Your task to perform on an android device: move a message to another label in the gmail app Image 0: 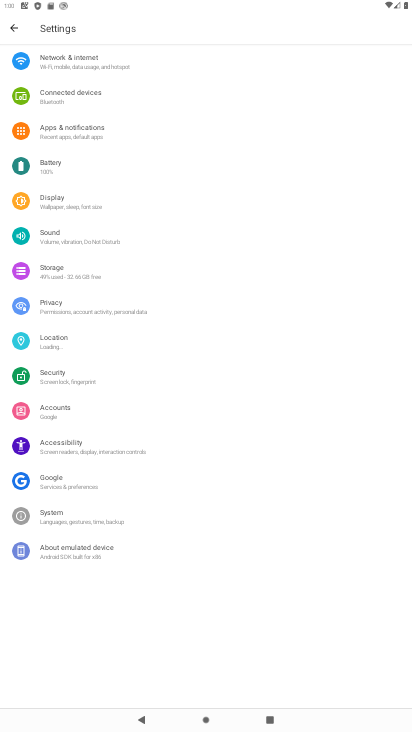
Step 0: press home button
Your task to perform on an android device: move a message to another label in the gmail app Image 1: 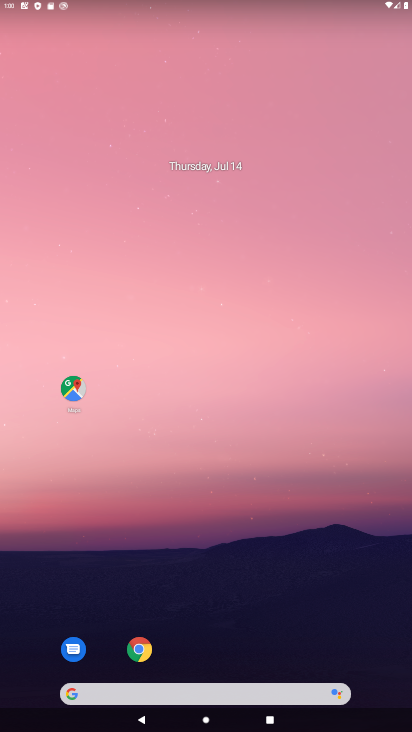
Step 1: drag from (269, 577) to (281, 28)
Your task to perform on an android device: move a message to another label in the gmail app Image 2: 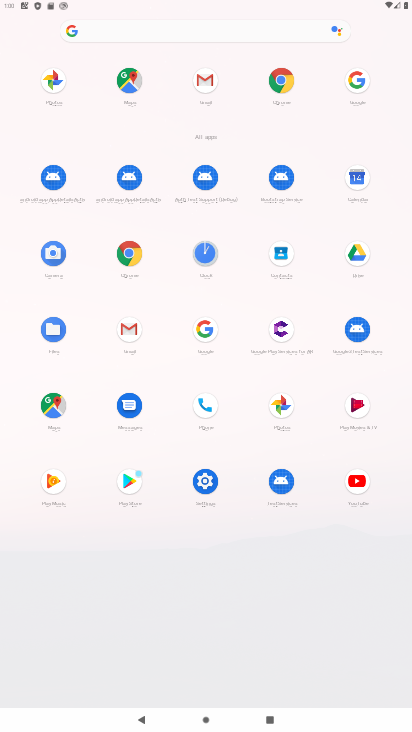
Step 2: click (212, 82)
Your task to perform on an android device: move a message to another label in the gmail app Image 3: 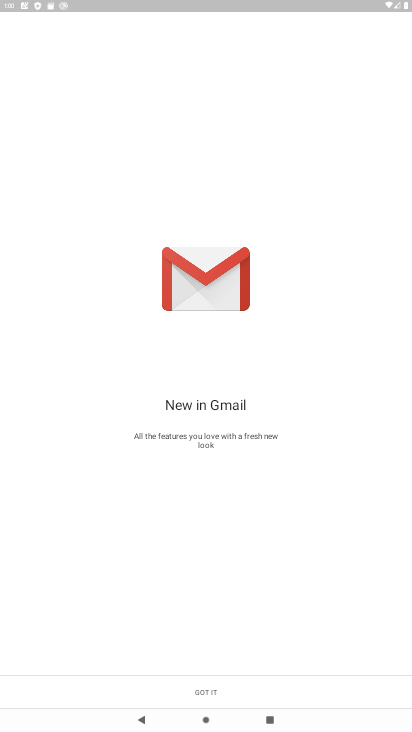
Step 3: click (237, 687)
Your task to perform on an android device: move a message to another label in the gmail app Image 4: 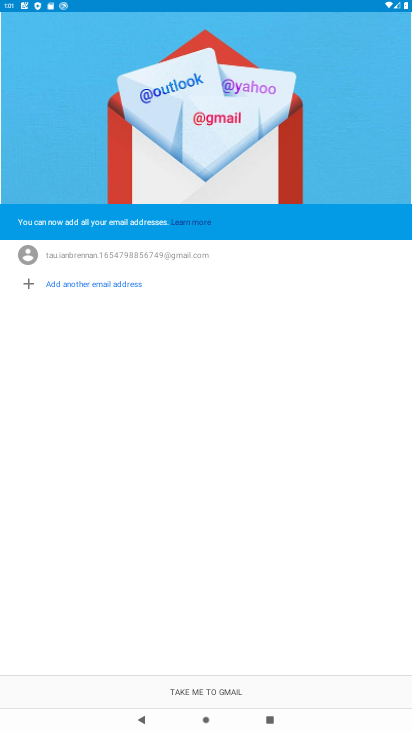
Step 4: click (237, 687)
Your task to perform on an android device: move a message to another label in the gmail app Image 5: 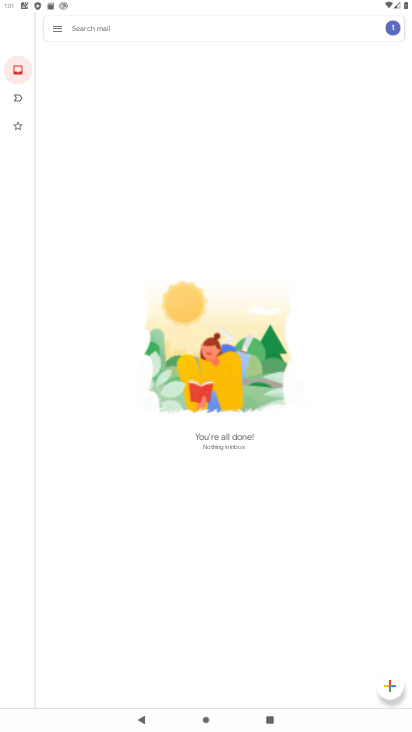
Step 5: click (56, 24)
Your task to perform on an android device: move a message to another label in the gmail app Image 6: 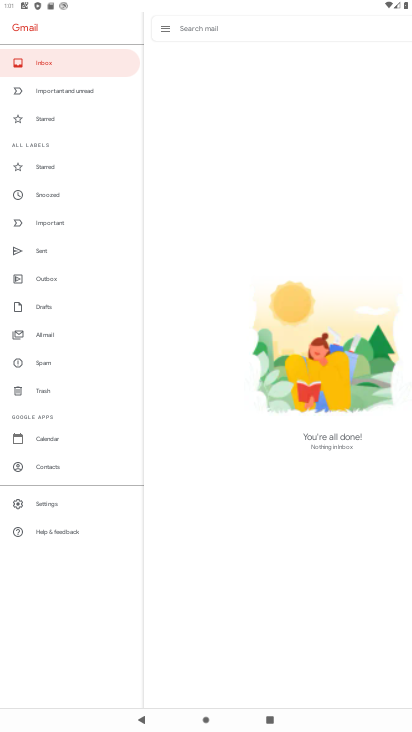
Step 6: click (59, 61)
Your task to perform on an android device: move a message to another label in the gmail app Image 7: 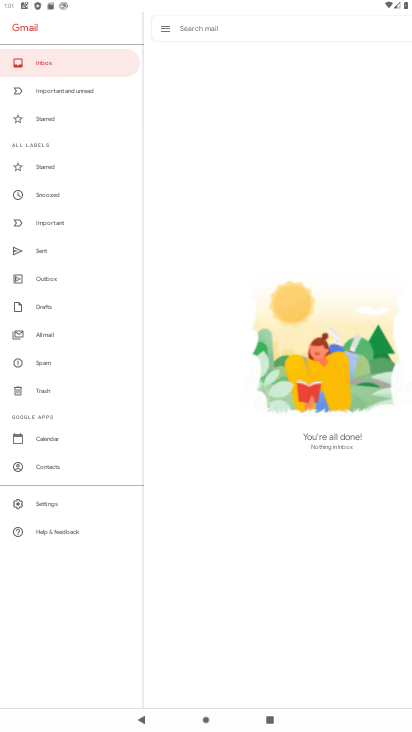
Step 7: task complete